Your task to perform on an android device: Search for Mexican restaurants on Maps Image 0: 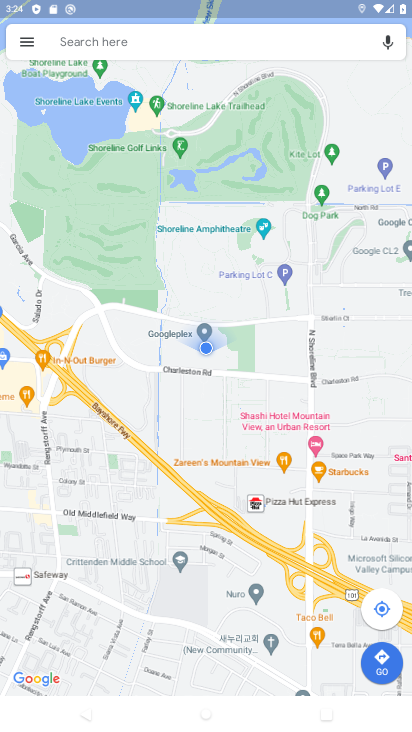
Step 0: click (209, 39)
Your task to perform on an android device: Search for Mexican restaurants on Maps Image 1: 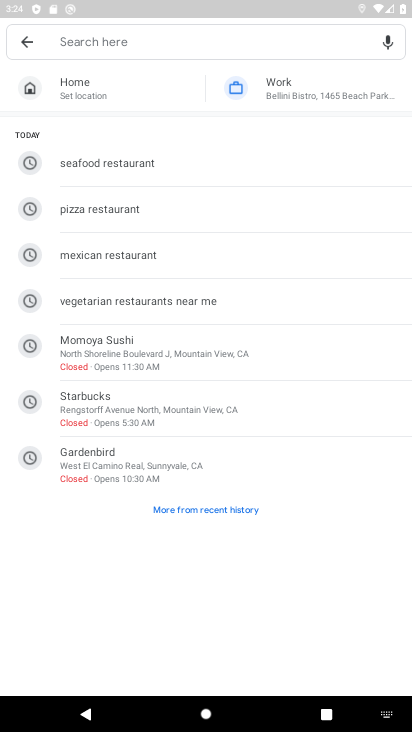
Step 1: click (110, 251)
Your task to perform on an android device: Search for Mexican restaurants on Maps Image 2: 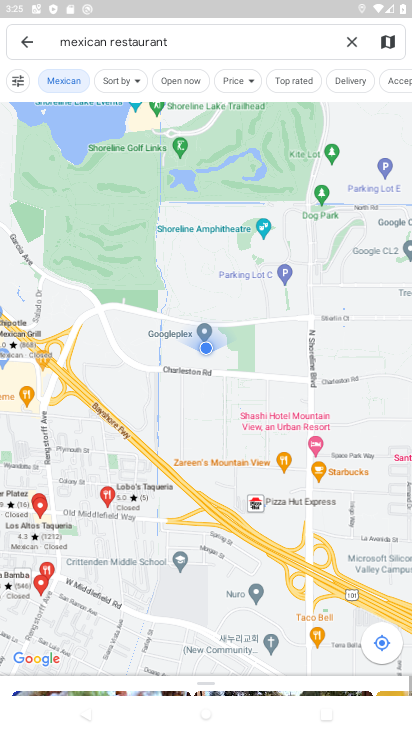
Step 2: task complete